Your task to perform on an android device: find which apps use the phone's location Image 0: 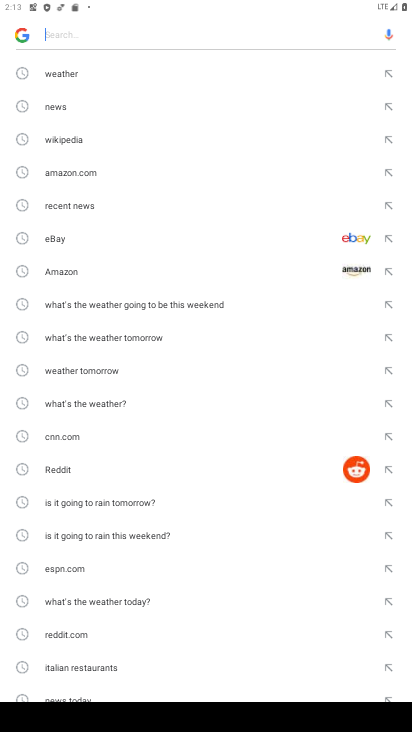
Step 0: press home button
Your task to perform on an android device: find which apps use the phone's location Image 1: 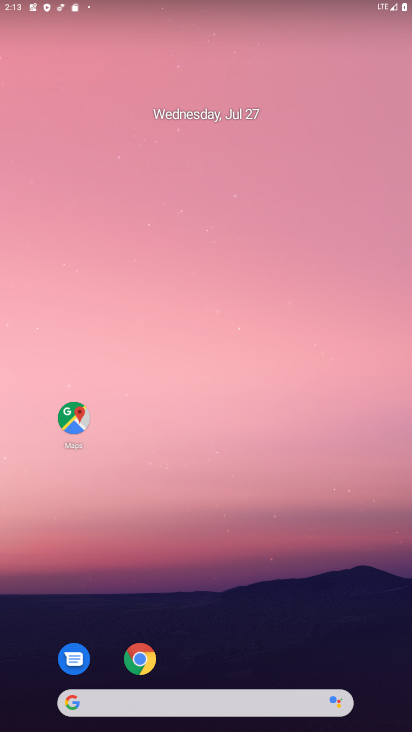
Step 1: drag from (231, 723) to (233, 307)
Your task to perform on an android device: find which apps use the phone's location Image 2: 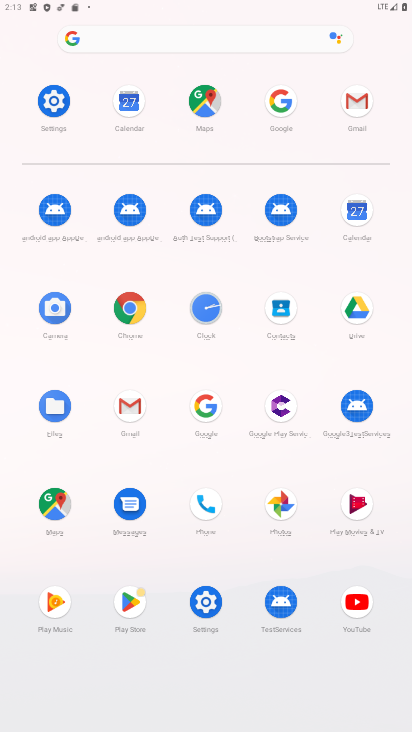
Step 2: click (209, 601)
Your task to perform on an android device: find which apps use the phone's location Image 3: 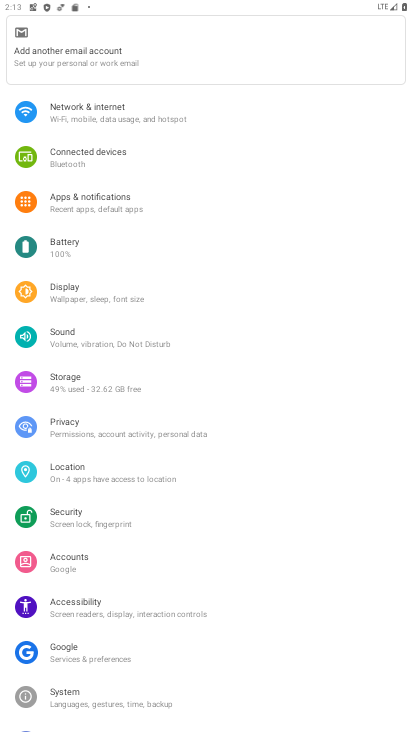
Step 3: click (67, 473)
Your task to perform on an android device: find which apps use the phone's location Image 4: 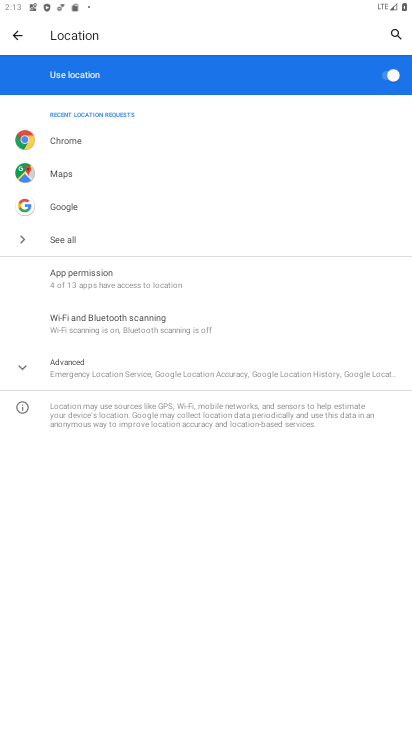
Step 4: click (89, 282)
Your task to perform on an android device: find which apps use the phone's location Image 5: 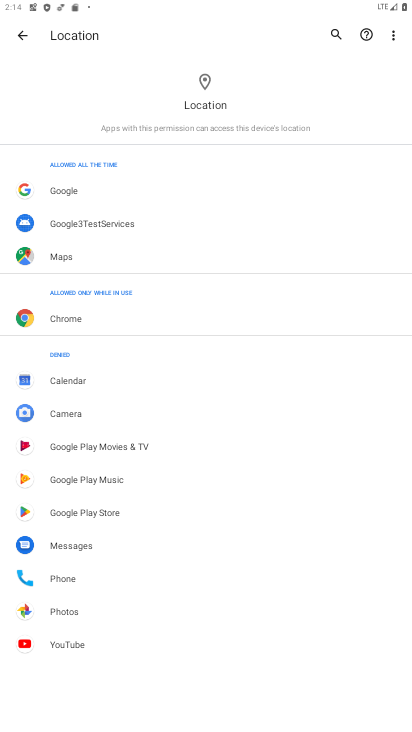
Step 5: task complete